Your task to perform on an android device: all mails in gmail Image 0: 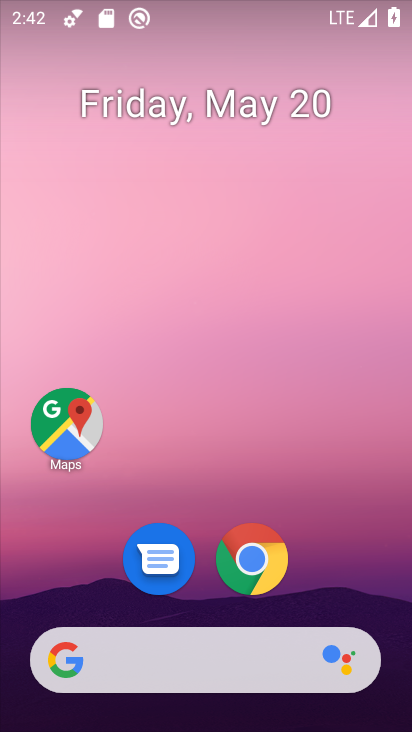
Step 0: drag from (280, 484) to (216, 71)
Your task to perform on an android device: all mails in gmail Image 1: 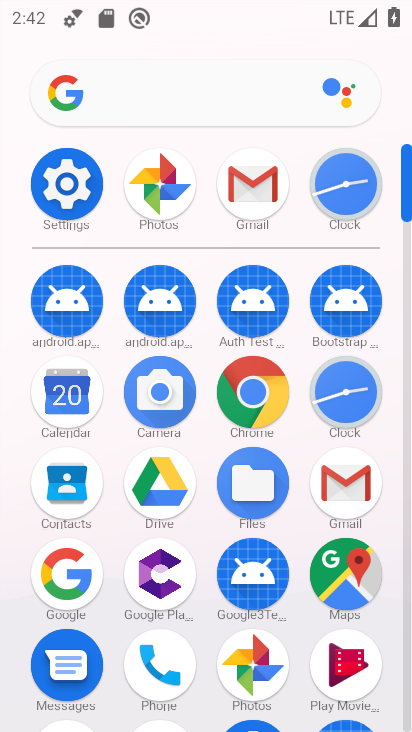
Step 1: click (239, 186)
Your task to perform on an android device: all mails in gmail Image 2: 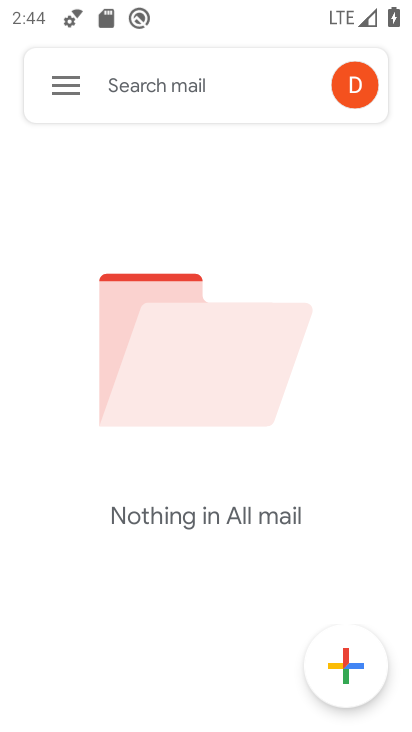
Step 2: task complete